Your task to perform on an android device: open app "Adobe Acrobat Reader: Edit PDF" (install if not already installed) and enter user name: "arthritis@inbox.com" and password: "scythes" Image 0: 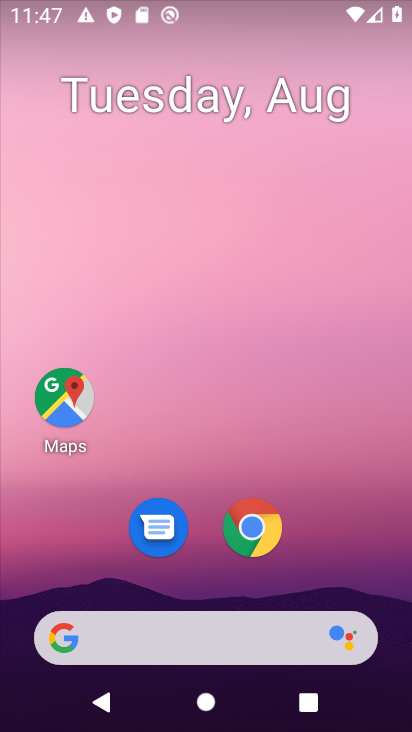
Step 0: drag from (151, 536) to (266, 91)
Your task to perform on an android device: open app "Adobe Acrobat Reader: Edit PDF" (install if not already installed) and enter user name: "arthritis@inbox.com" and password: "scythes" Image 1: 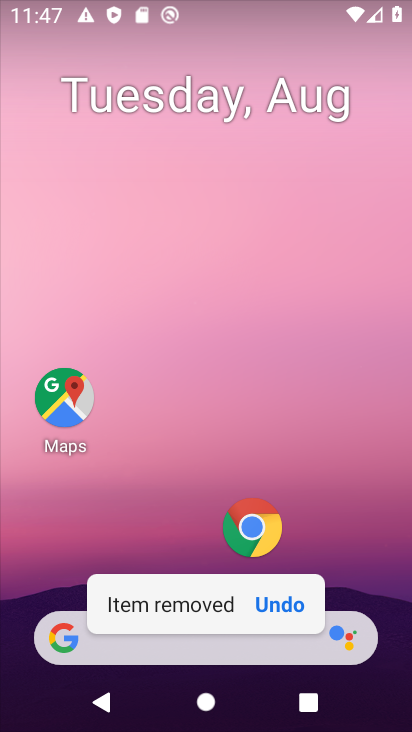
Step 1: drag from (136, 534) to (292, 18)
Your task to perform on an android device: open app "Adobe Acrobat Reader: Edit PDF" (install if not already installed) and enter user name: "arthritis@inbox.com" and password: "scythes" Image 2: 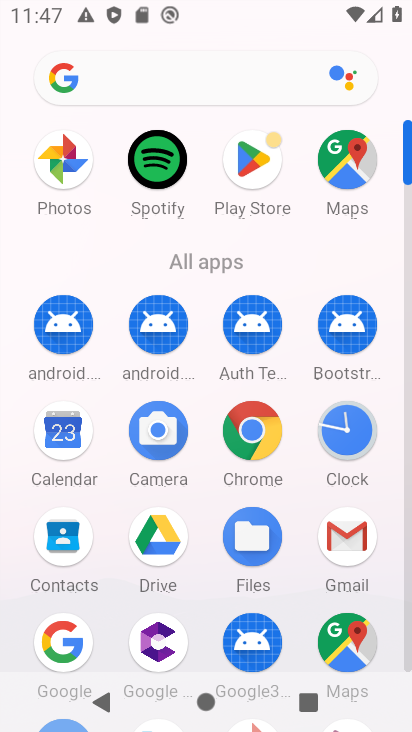
Step 2: click (276, 185)
Your task to perform on an android device: open app "Adobe Acrobat Reader: Edit PDF" (install if not already installed) and enter user name: "arthritis@inbox.com" and password: "scythes" Image 3: 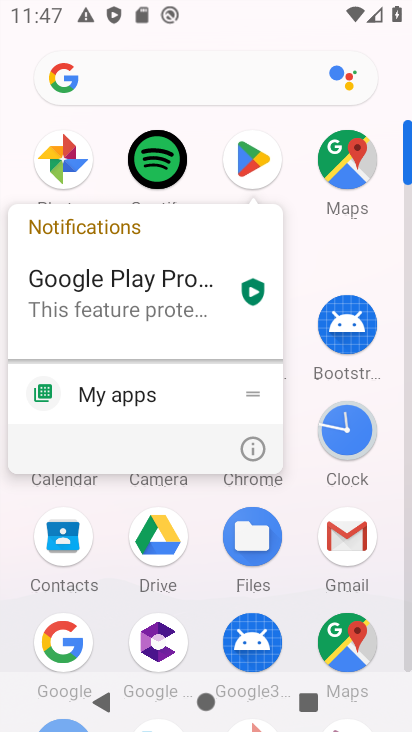
Step 3: click (255, 156)
Your task to perform on an android device: open app "Adobe Acrobat Reader: Edit PDF" (install if not already installed) and enter user name: "arthritis@inbox.com" and password: "scythes" Image 4: 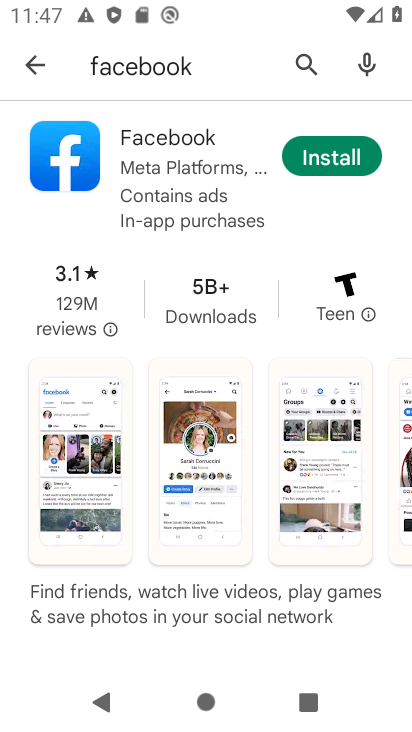
Step 4: click (291, 55)
Your task to perform on an android device: open app "Adobe Acrobat Reader: Edit PDF" (install if not already installed) and enter user name: "arthritis@inbox.com" and password: "scythes" Image 5: 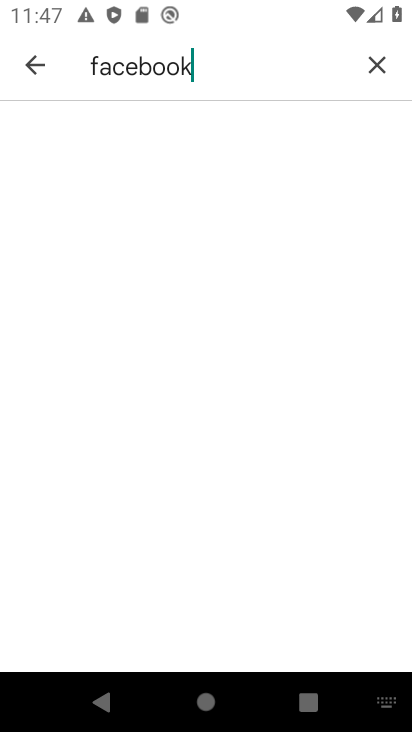
Step 5: click (382, 62)
Your task to perform on an android device: open app "Adobe Acrobat Reader: Edit PDF" (install if not already installed) and enter user name: "arthritis@inbox.com" and password: "scythes" Image 6: 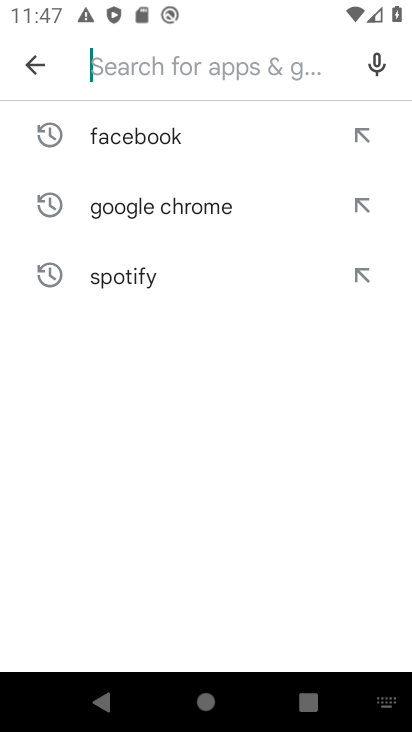
Step 6: click (132, 68)
Your task to perform on an android device: open app "Adobe Acrobat Reader: Edit PDF" (install if not already installed) and enter user name: "arthritis@inbox.com" and password: "scythes" Image 7: 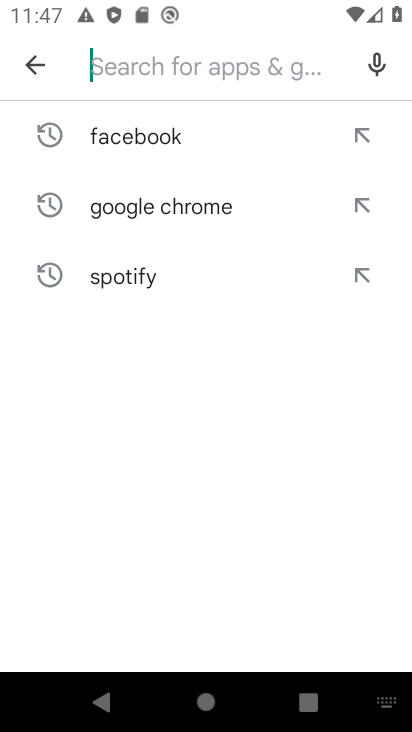
Step 7: type "Adobe Acrobat Reader"
Your task to perform on an android device: open app "Adobe Acrobat Reader: Edit PDF" (install if not already installed) and enter user name: "arthritis@inbox.com" and password: "scythes" Image 8: 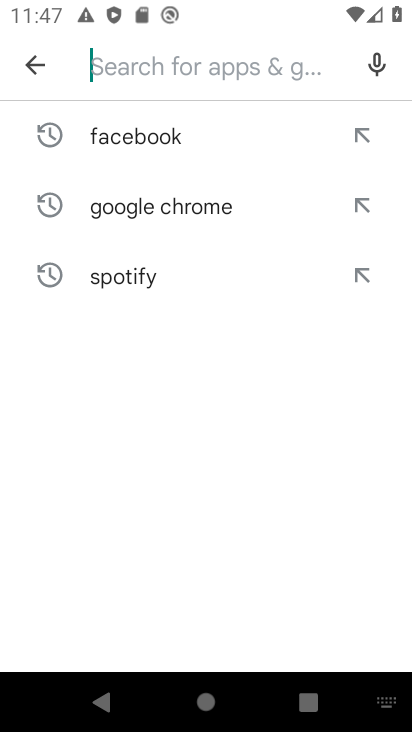
Step 8: click (249, 512)
Your task to perform on an android device: open app "Adobe Acrobat Reader: Edit PDF" (install if not already installed) and enter user name: "arthritis@inbox.com" and password: "scythes" Image 9: 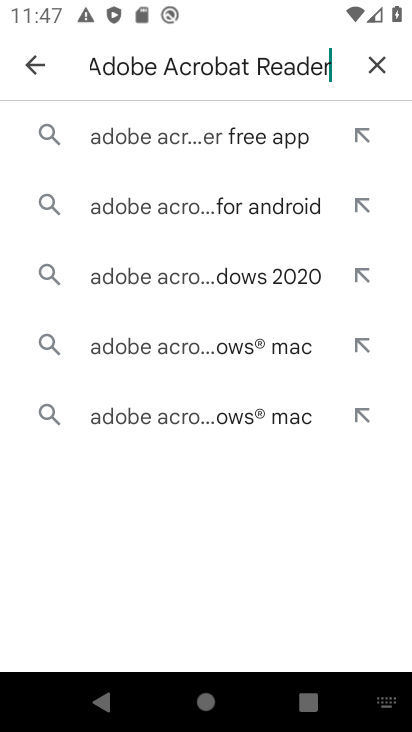
Step 9: click (209, 121)
Your task to perform on an android device: open app "Adobe Acrobat Reader: Edit PDF" (install if not already installed) and enter user name: "arthritis@inbox.com" and password: "scythes" Image 10: 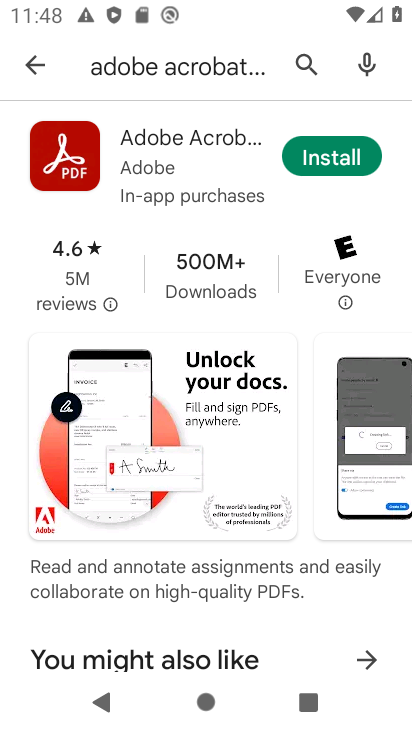
Step 10: click (333, 164)
Your task to perform on an android device: open app "Adobe Acrobat Reader: Edit PDF" (install if not already installed) and enter user name: "arthritis@inbox.com" and password: "scythes" Image 11: 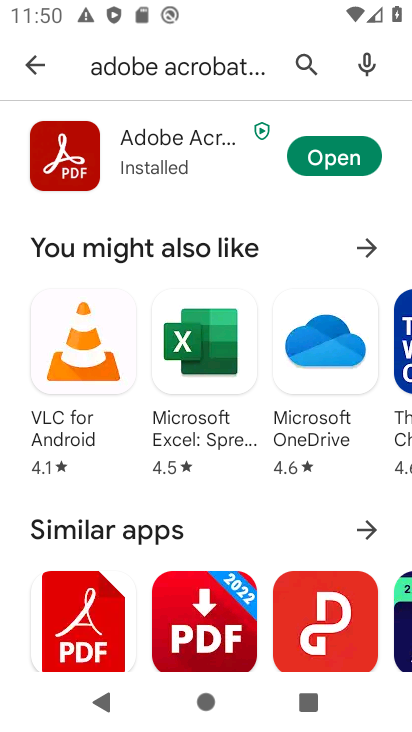
Step 11: click (334, 166)
Your task to perform on an android device: open app "Adobe Acrobat Reader: Edit PDF" (install if not already installed) and enter user name: "arthritis@inbox.com" and password: "scythes" Image 12: 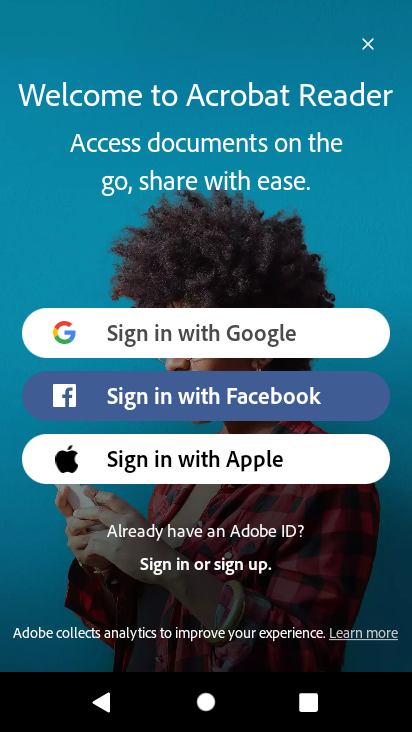
Step 12: click (181, 576)
Your task to perform on an android device: open app "Adobe Acrobat Reader: Edit PDF" (install if not already installed) and enter user name: "arthritis@inbox.com" and password: "scythes" Image 13: 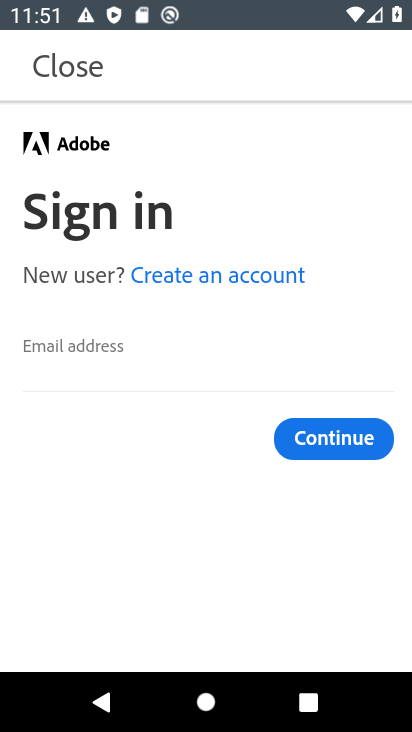
Step 13: click (87, 350)
Your task to perform on an android device: open app "Adobe Acrobat Reader: Edit PDF" (install if not already installed) and enter user name: "arthritis@inbox.com" and password: "scythes" Image 14: 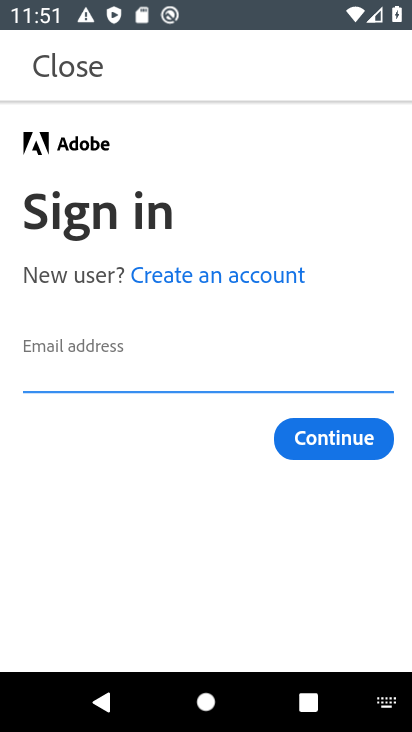
Step 14: type "arthritis@inbox.com"
Your task to perform on an android device: open app "Adobe Acrobat Reader: Edit PDF" (install if not already installed) and enter user name: "arthritis@inbox.com" and password: "scythes" Image 15: 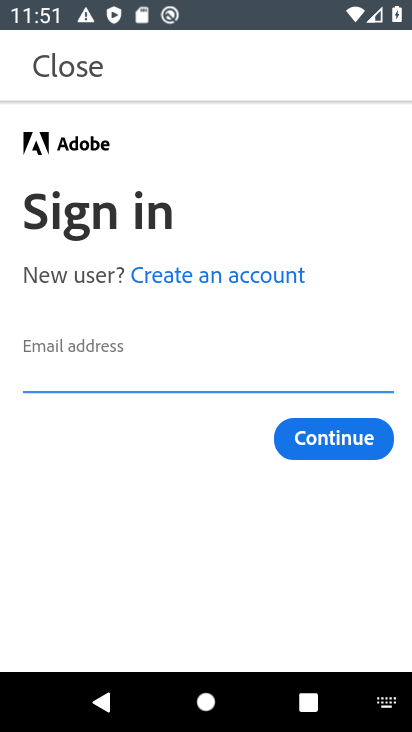
Step 15: click (183, 560)
Your task to perform on an android device: open app "Adobe Acrobat Reader: Edit PDF" (install if not already installed) and enter user name: "arthritis@inbox.com" and password: "scythes" Image 16: 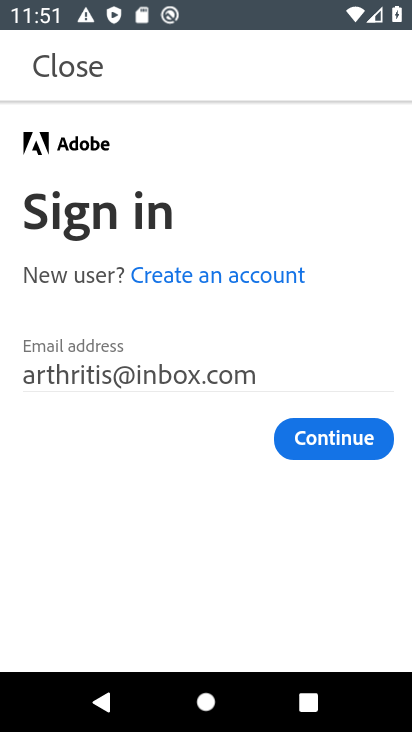
Step 16: click (344, 445)
Your task to perform on an android device: open app "Adobe Acrobat Reader: Edit PDF" (install if not already installed) and enter user name: "arthritis@inbox.com" and password: "scythes" Image 17: 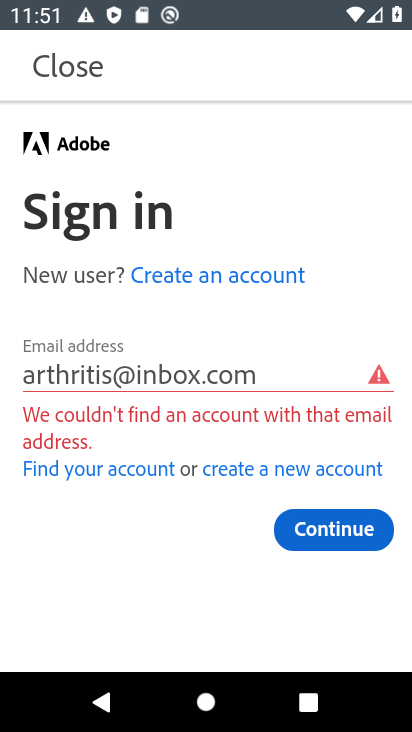
Step 17: task complete